Your task to perform on an android device: move an email to a new category in the gmail app Image 0: 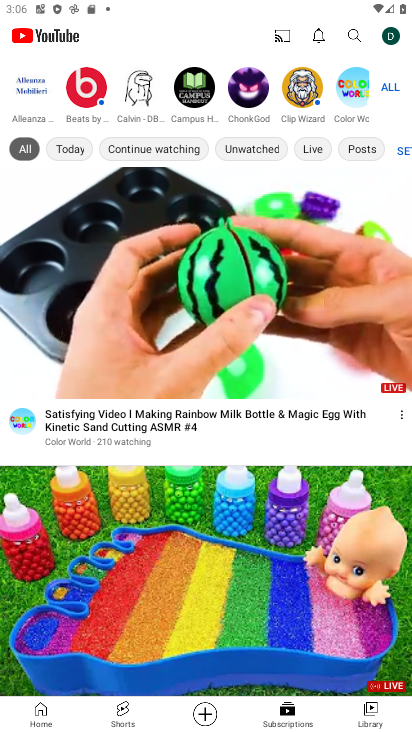
Step 0: press home button
Your task to perform on an android device: move an email to a new category in the gmail app Image 1: 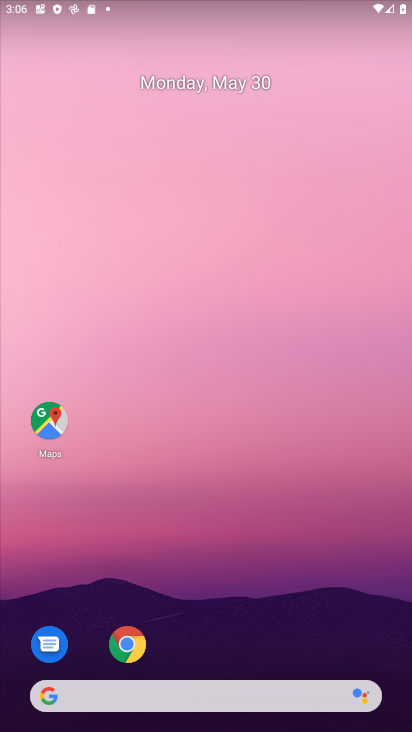
Step 1: drag from (288, 645) to (281, 0)
Your task to perform on an android device: move an email to a new category in the gmail app Image 2: 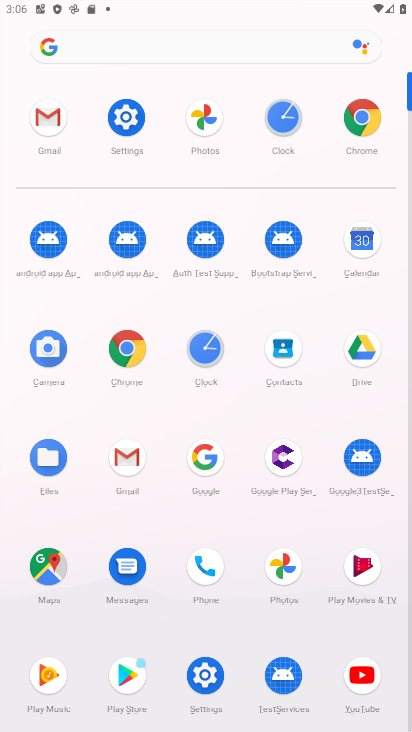
Step 2: click (50, 131)
Your task to perform on an android device: move an email to a new category in the gmail app Image 3: 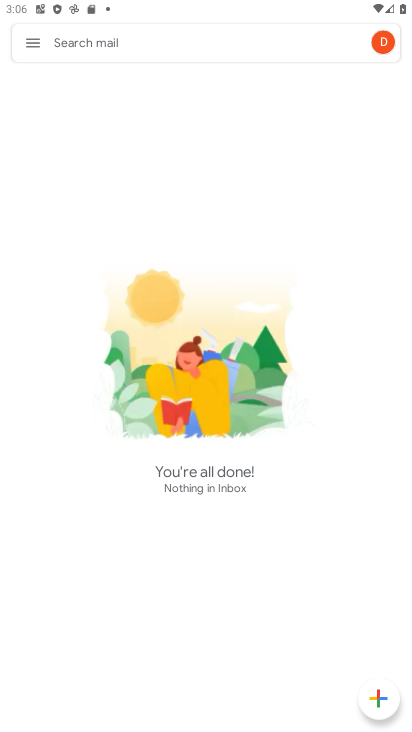
Step 3: task complete